Your task to perform on an android device: turn off location Image 0: 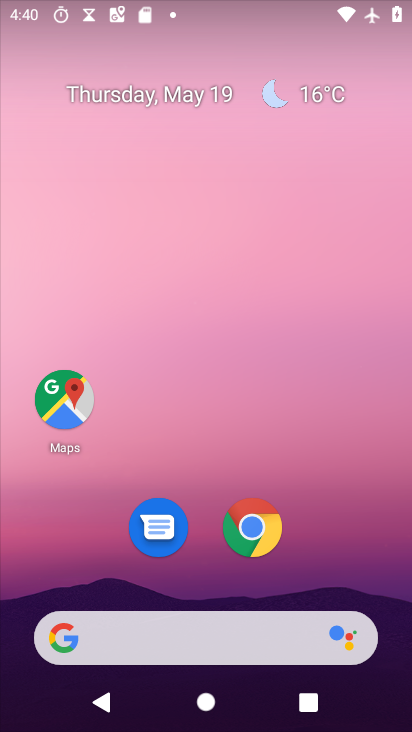
Step 0: press home button
Your task to perform on an android device: turn off location Image 1: 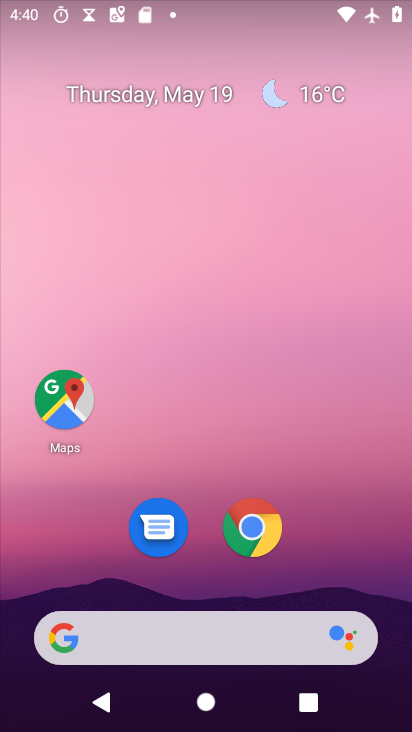
Step 1: drag from (308, 445) to (232, 39)
Your task to perform on an android device: turn off location Image 2: 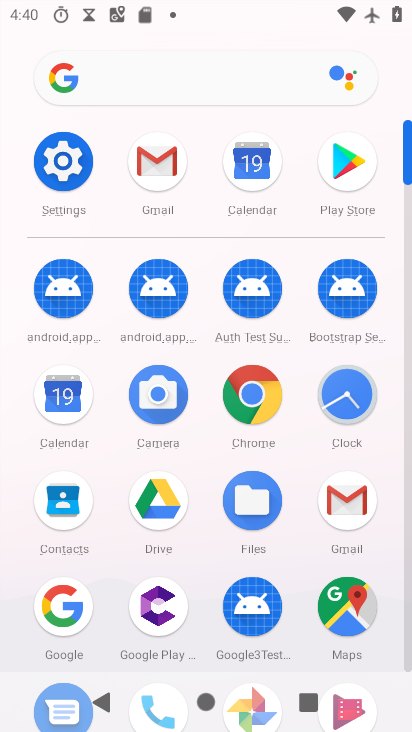
Step 2: click (70, 166)
Your task to perform on an android device: turn off location Image 3: 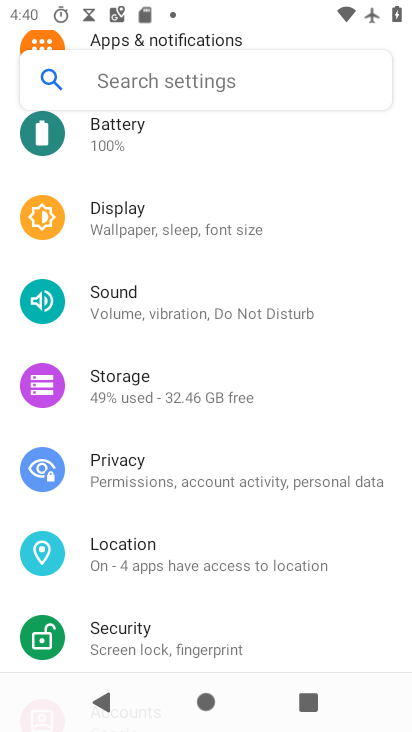
Step 3: click (213, 543)
Your task to perform on an android device: turn off location Image 4: 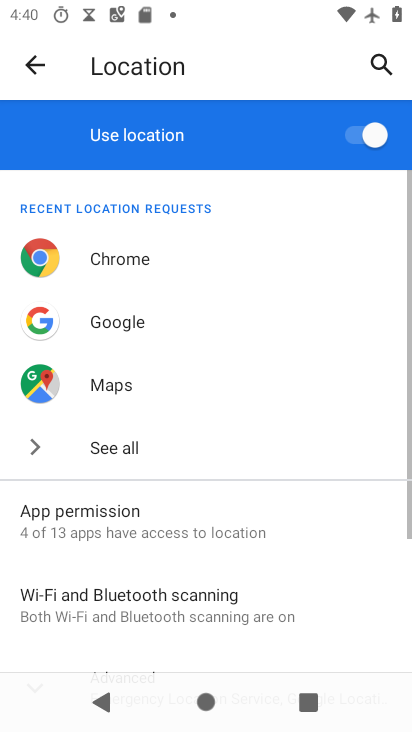
Step 4: click (367, 134)
Your task to perform on an android device: turn off location Image 5: 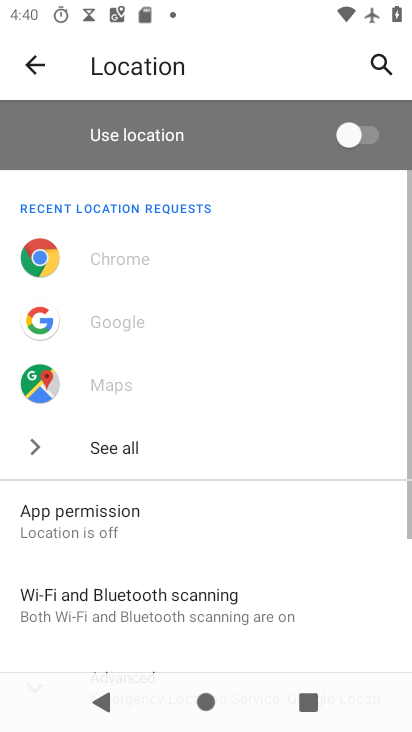
Step 5: task complete